Your task to perform on an android device: change the upload size in google photos Image 0: 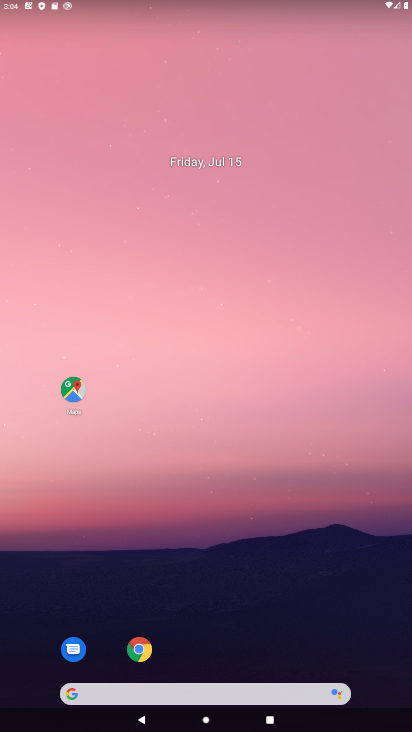
Step 0: drag from (281, 452) to (251, 101)
Your task to perform on an android device: change the upload size in google photos Image 1: 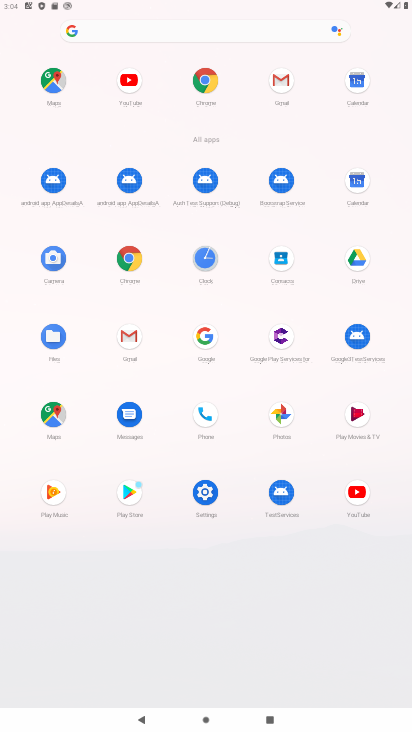
Step 1: click (279, 419)
Your task to perform on an android device: change the upload size in google photos Image 2: 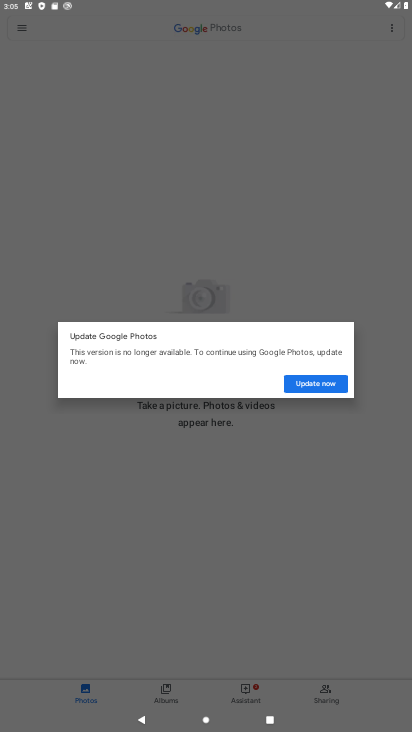
Step 2: click (330, 386)
Your task to perform on an android device: change the upload size in google photos Image 3: 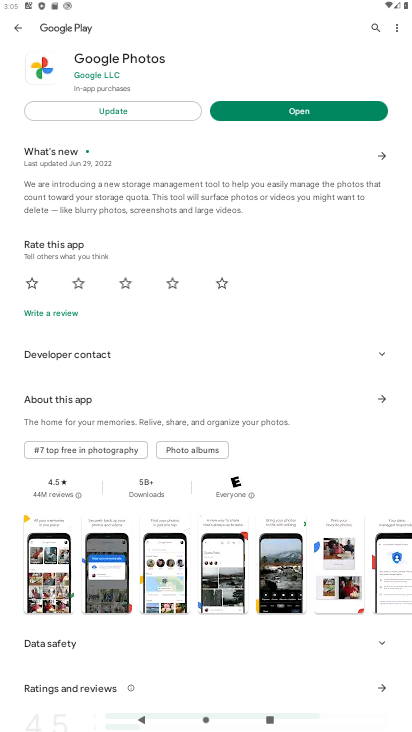
Step 3: click (160, 114)
Your task to perform on an android device: change the upload size in google photos Image 4: 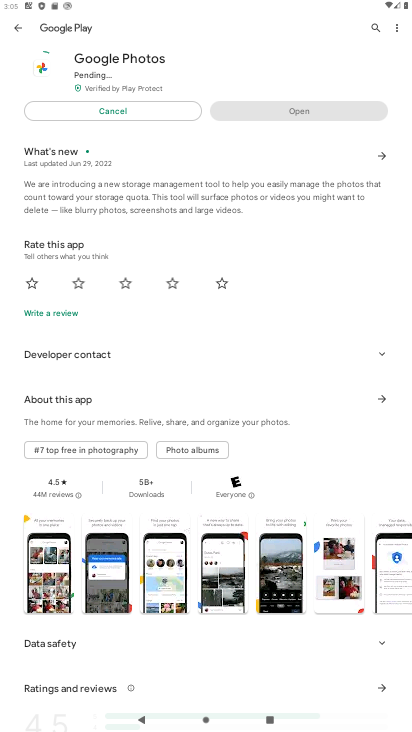
Step 4: task complete